Your task to perform on an android device: snooze an email in the gmail app Image 0: 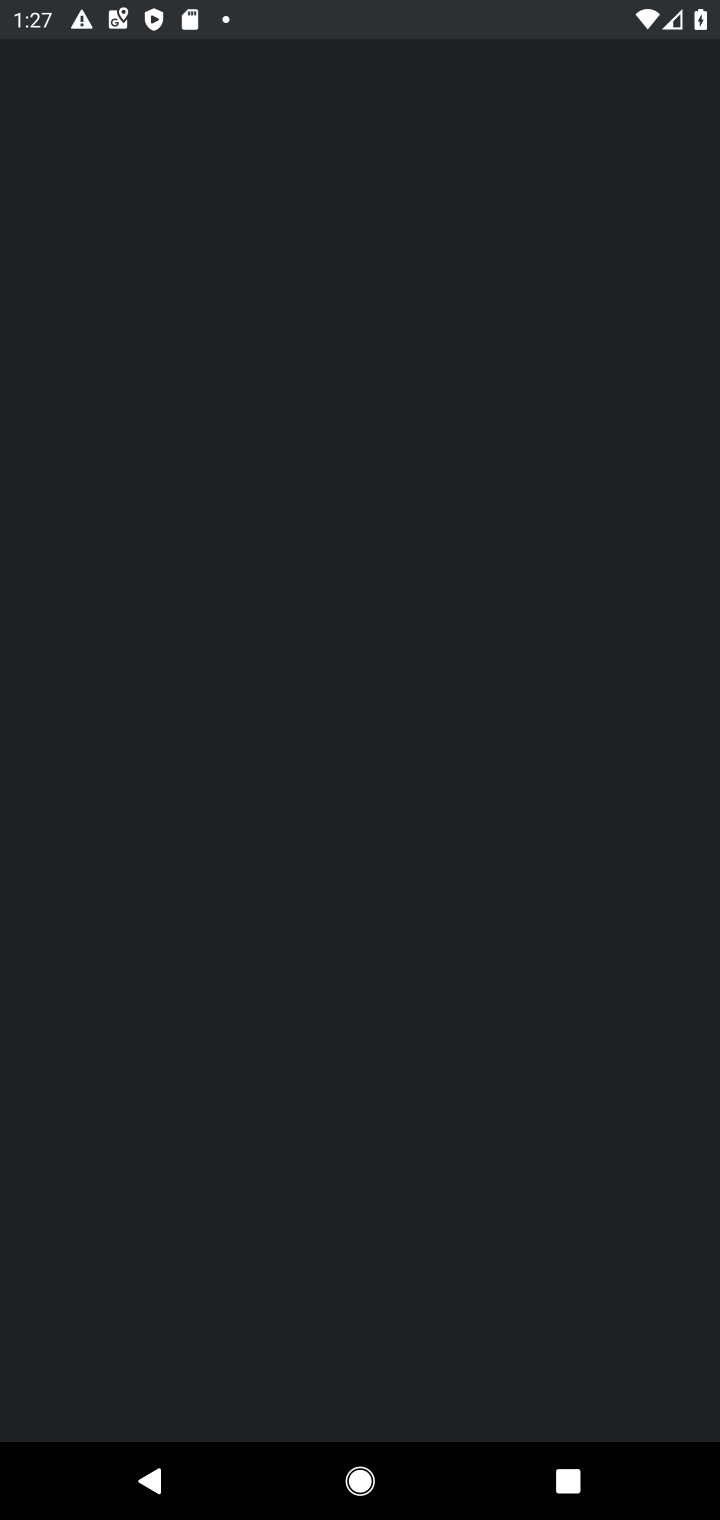
Step 0: press home button
Your task to perform on an android device: snooze an email in the gmail app Image 1: 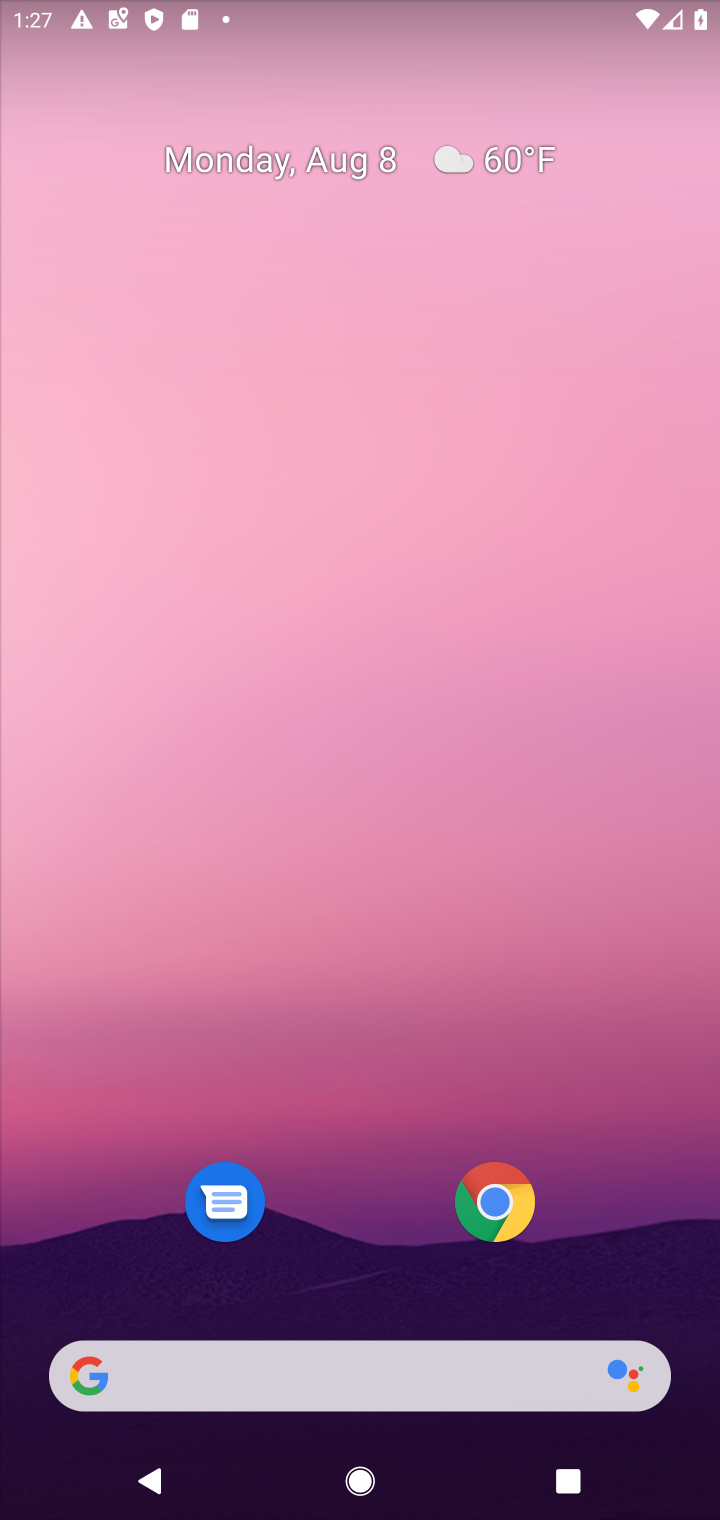
Step 1: press home button
Your task to perform on an android device: snooze an email in the gmail app Image 2: 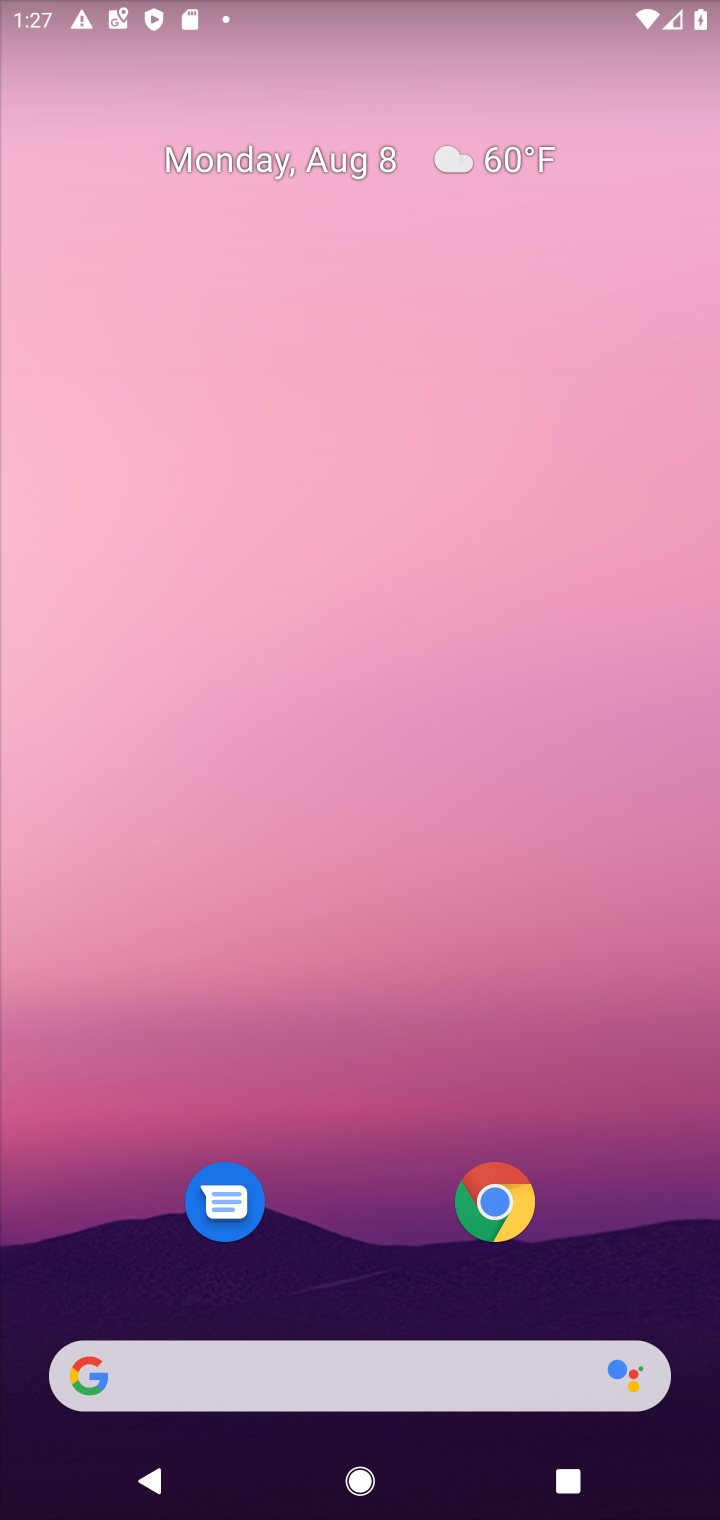
Step 2: drag from (618, 1248) to (615, 254)
Your task to perform on an android device: snooze an email in the gmail app Image 3: 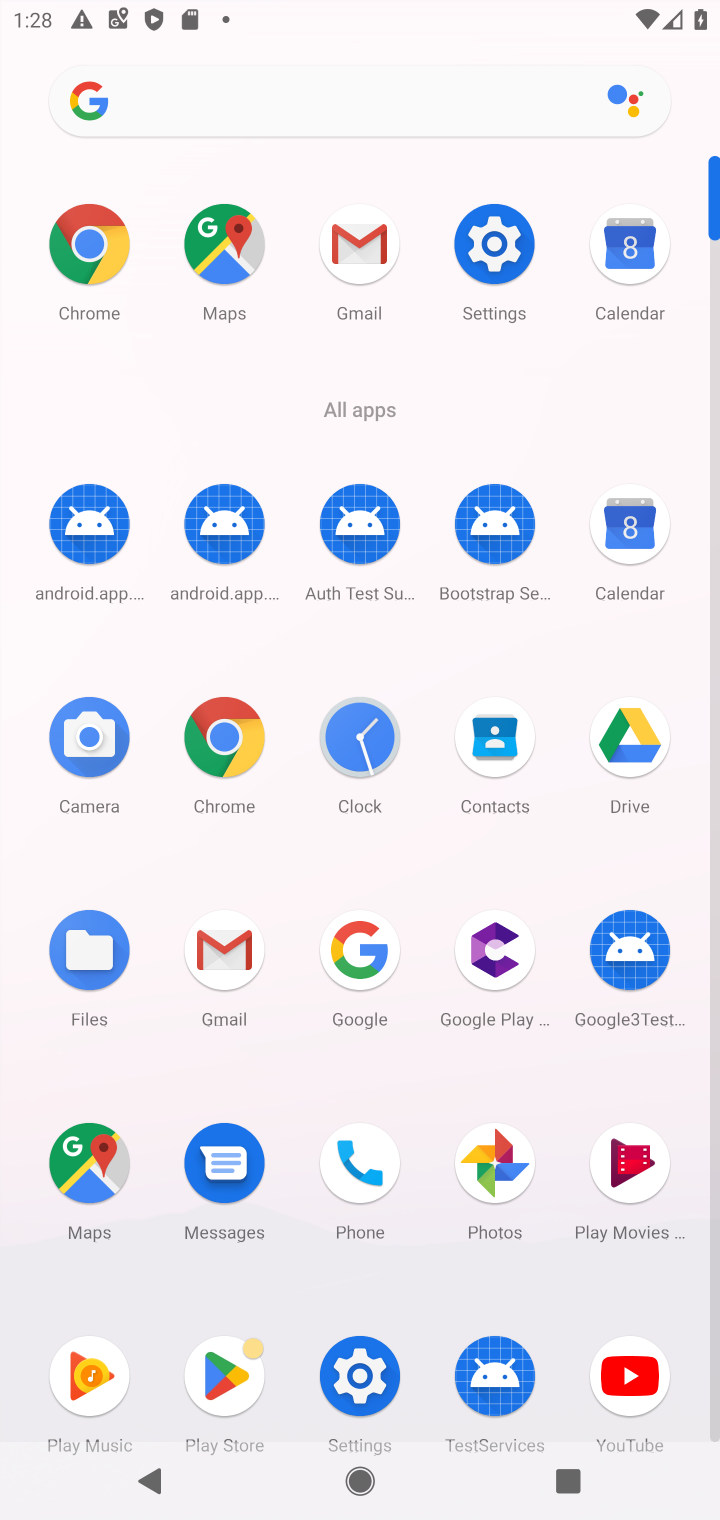
Step 3: click (236, 940)
Your task to perform on an android device: snooze an email in the gmail app Image 4: 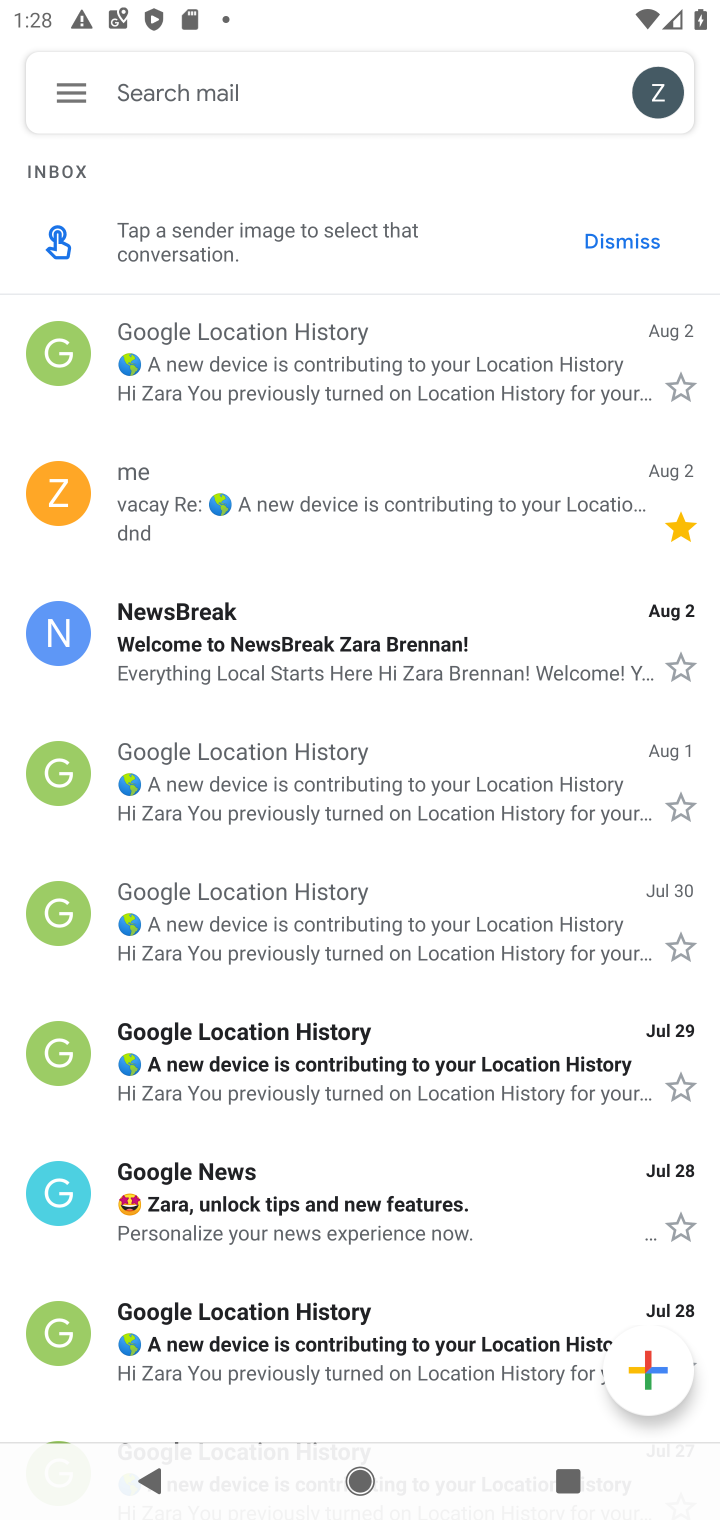
Step 4: click (72, 91)
Your task to perform on an android device: snooze an email in the gmail app Image 5: 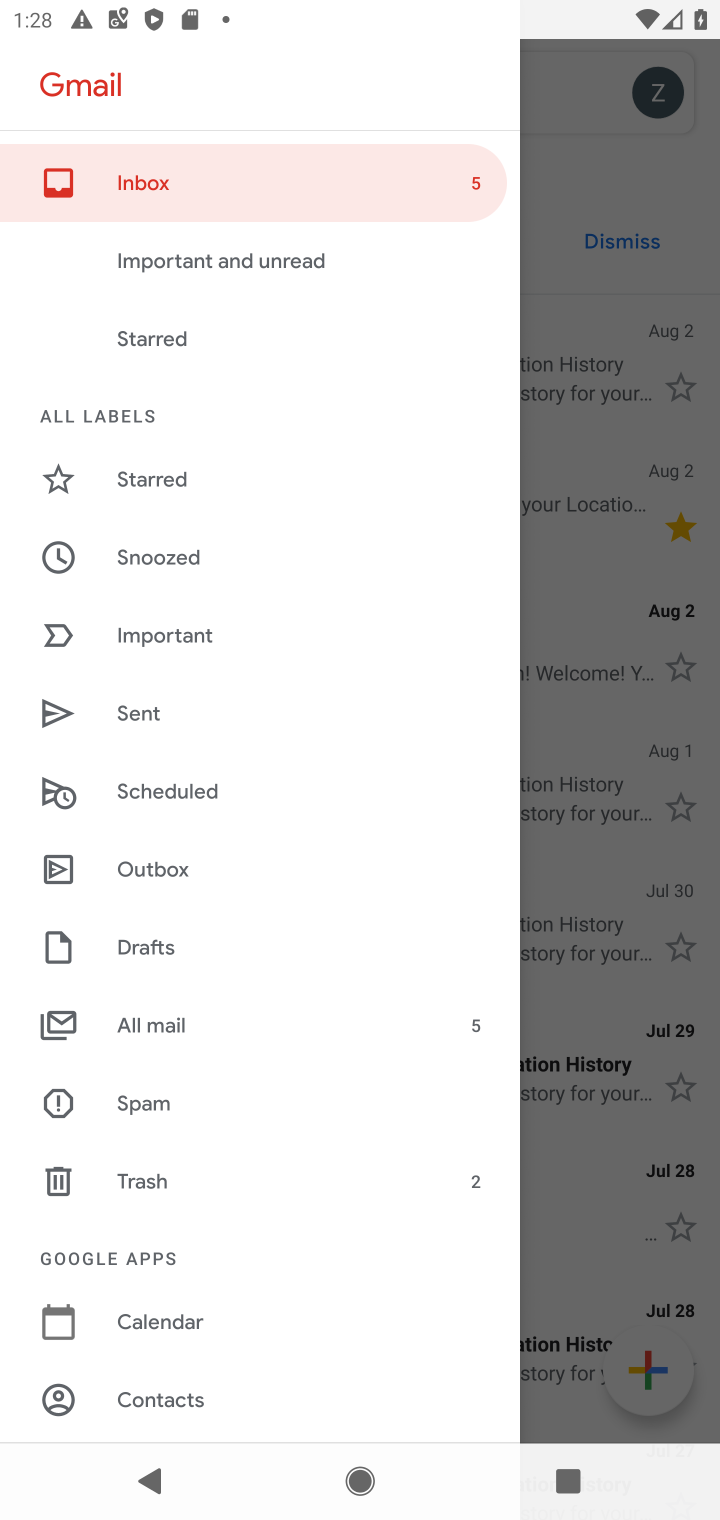
Step 5: click (197, 556)
Your task to perform on an android device: snooze an email in the gmail app Image 6: 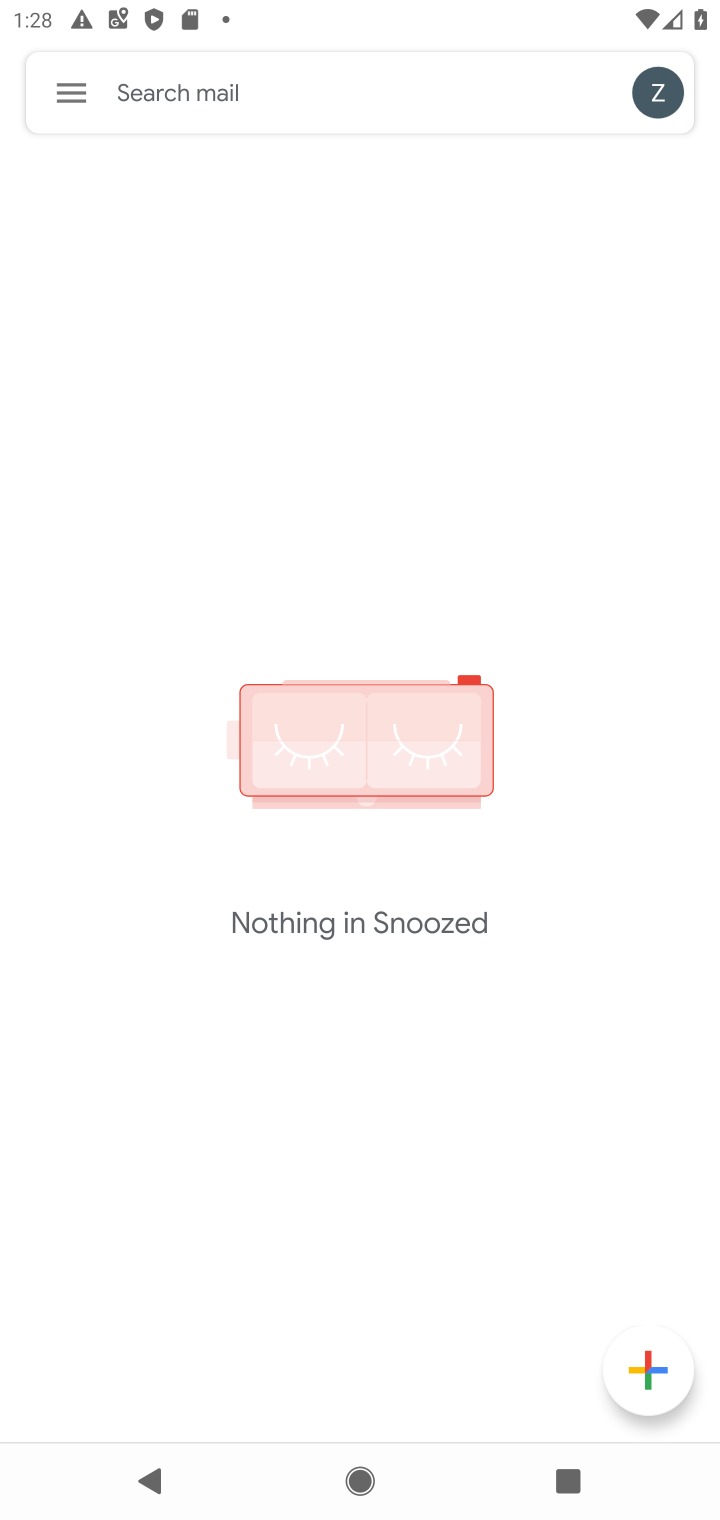
Step 6: task complete